Your task to perform on an android device: What's the weather going to be tomorrow? Image 0: 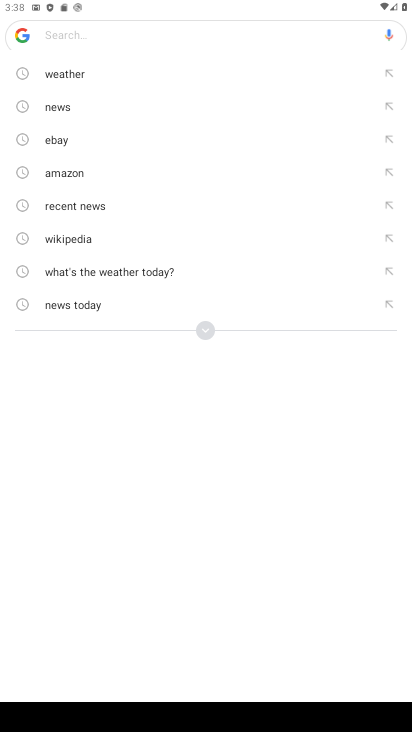
Step 0: press home button
Your task to perform on an android device: What's the weather going to be tomorrow? Image 1: 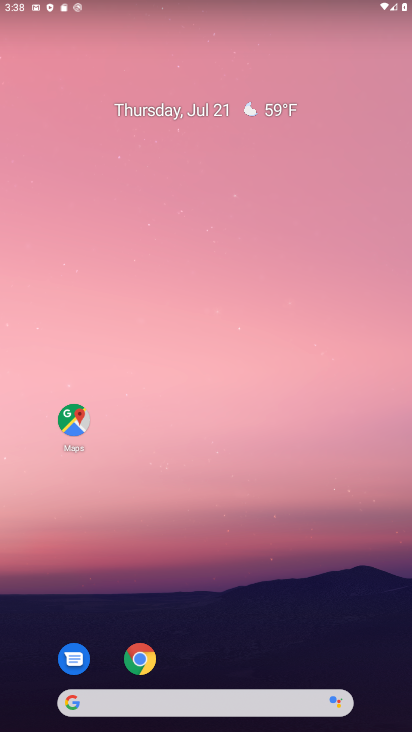
Step 1: drag from (177, 697) to (234, 223)
Your task to perform on an android device: What's the weather going to be tomorrow? Image 2: 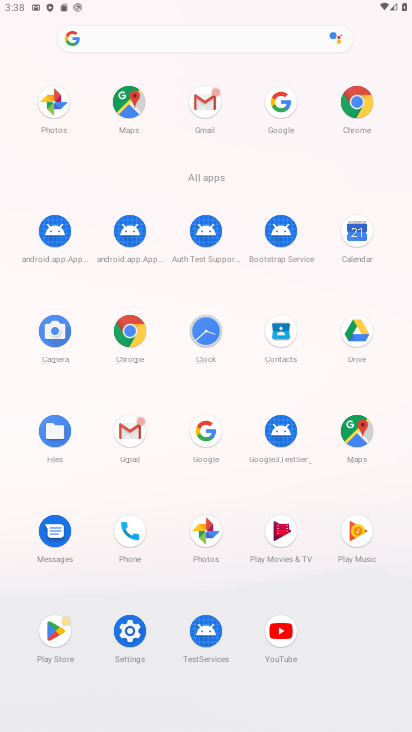
Step 2: click (278, 99)
Your task to perform on an android device: What's the weather going to be tomorrow? Image 3: 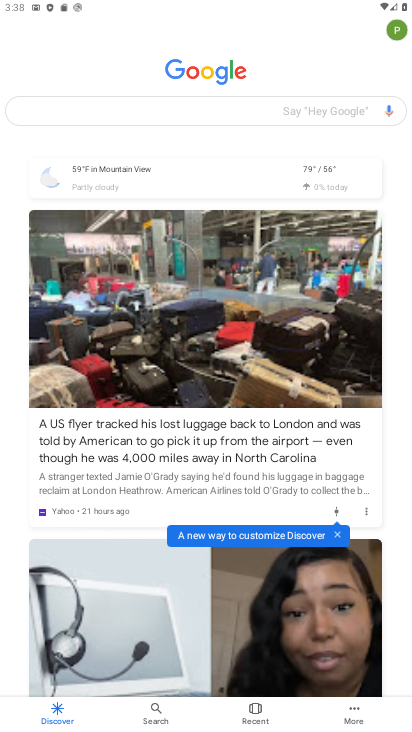
Step 3: click (277, 170)
Your task to perform on an android device: What's the weather going to be tomorrow? Image 4: 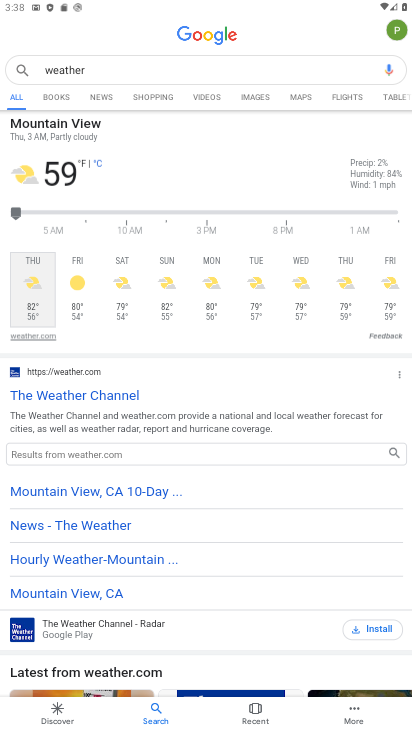
Step 4: click (77, 275)
Your task to perform on an android device: What's the weather going to be tomorrow? Image 5: 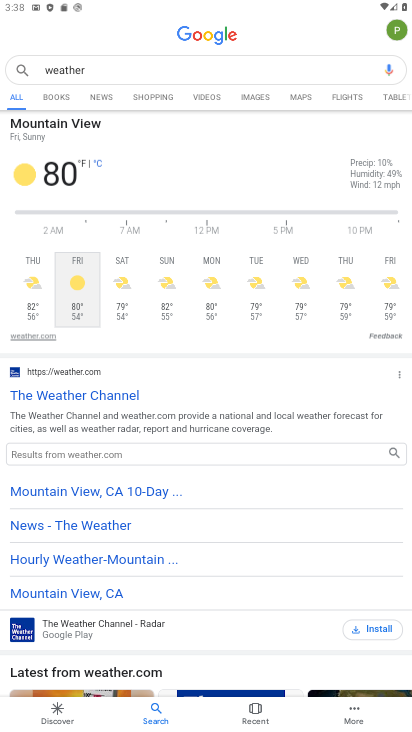
Step 5: task complete